Your task to perform on an android device: Go to notification settings Image 0: 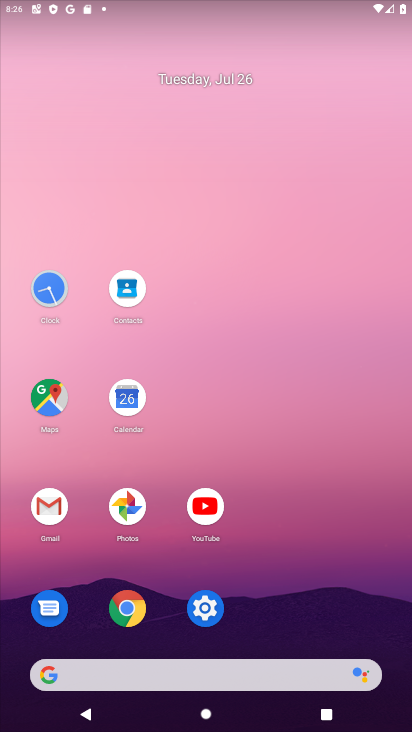
Step 0: click (202, 609)
Your task to perform on an android device: Go to notification settings Image 1: 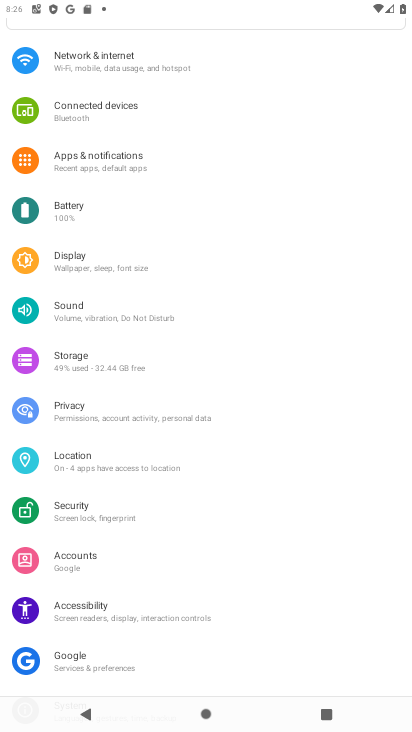
Step 1: click (81, 155)
Your task to perform on an android device: Go to notification settings Image 2: 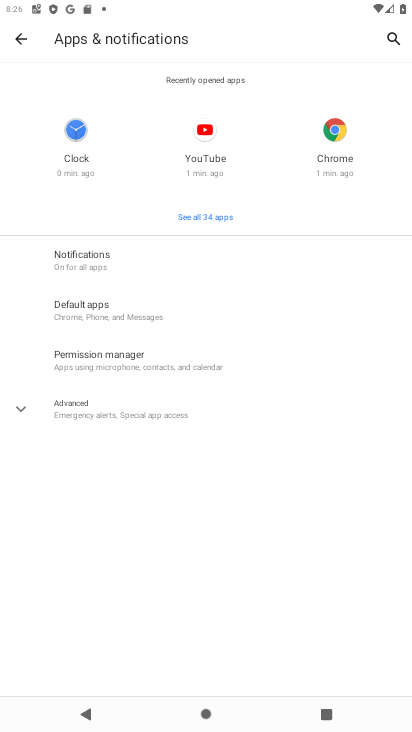
Step 2: task complete